Your task to perform on an android device: check battery use Image 0: 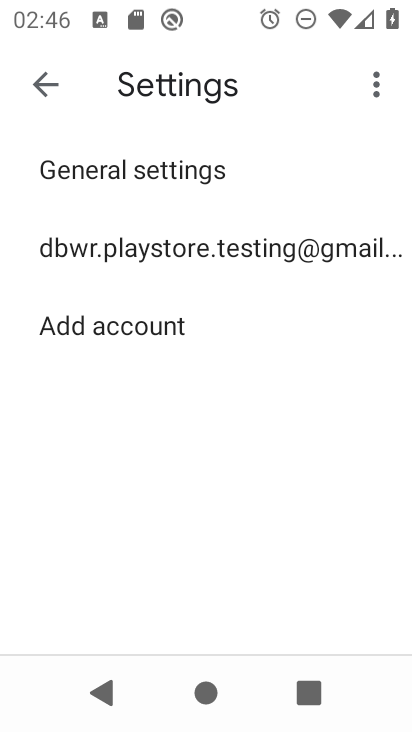
Step 0: press home button
Your task to perform on an android device: check battery use Image 1: 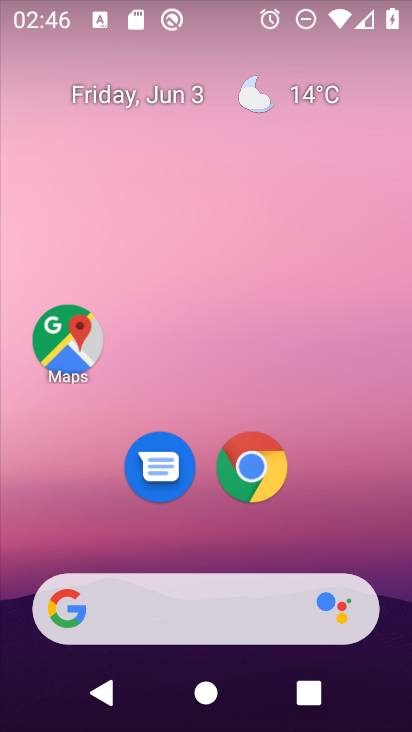
Step 1: drag from (390, 570) to (332, 34)
Your task to perform on an android device: check battery use Image 2: 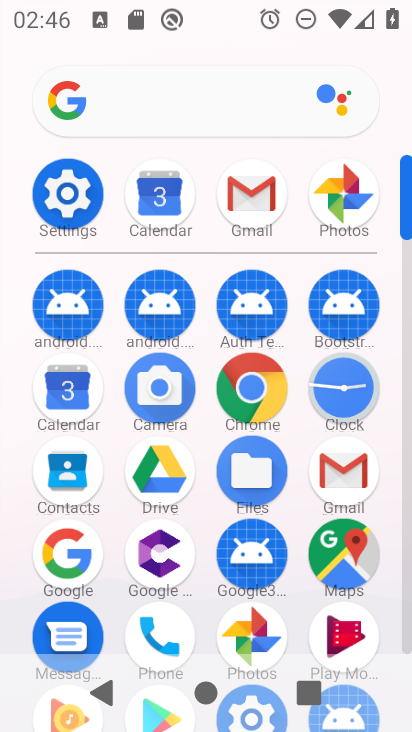
Step 2: click (404, 631)
Your task to perform on an android device: check battery use Image 3: 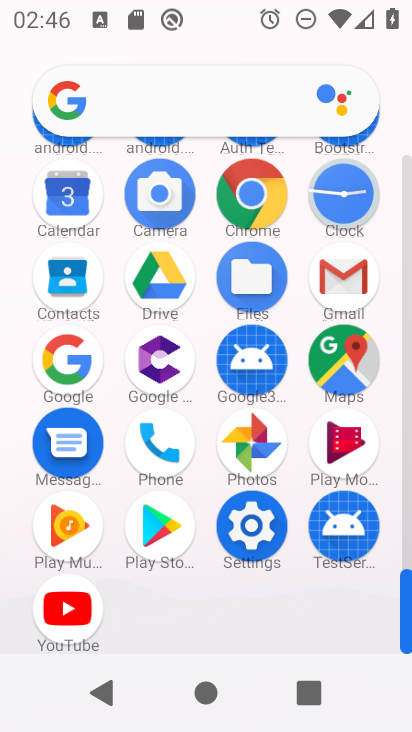
Step 3: click (251, 524)
Your task to perform on an android device: check battery use Image 4: 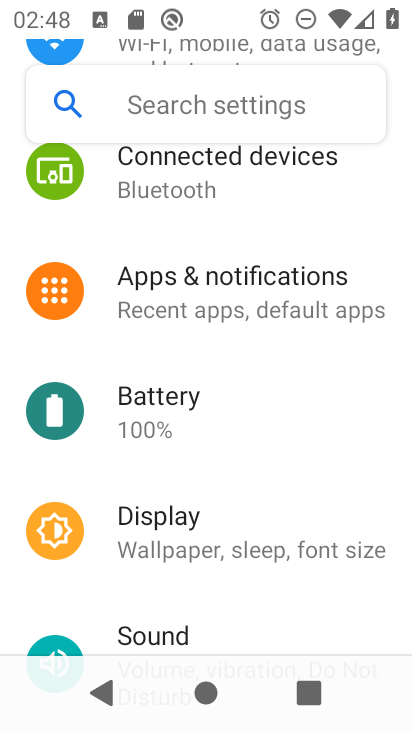
Step 4: click (143, 388)
Your task to perform on an android device: check battery use Image 5: 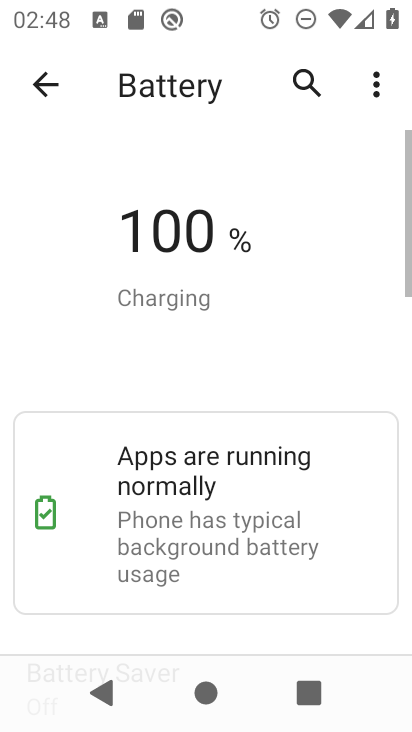
Step 5: click (371, 93)
Your task to perform on an android device: check battery use Image 6: 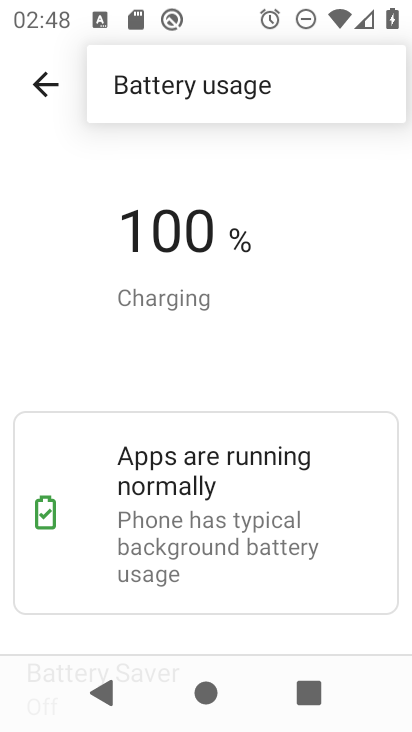
Step 6: click (173, 87)
Your task to perform on an android device: check battery use Image 7: 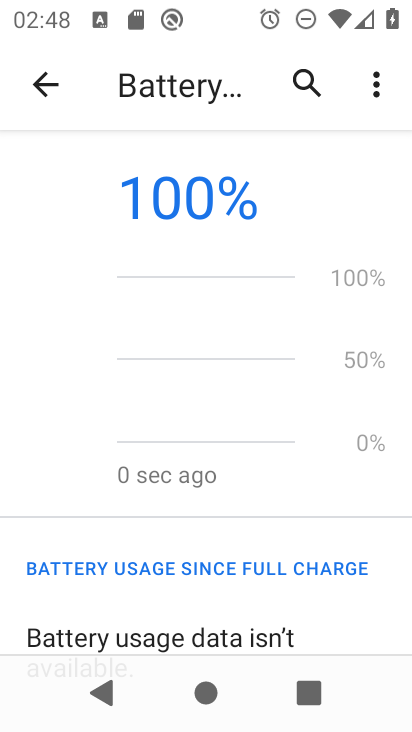
Step 7: task complete